Your task to perform on an android device: turn on notifications settings in the gmail app Image 0: 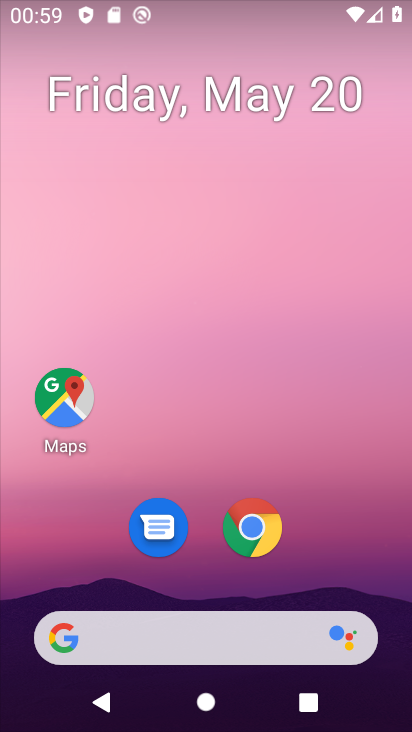
Step 0: drag from (201, 559) to (260, 13)
Your task to perform on an android device: turn on notifications settings in the gmail app Image 1: 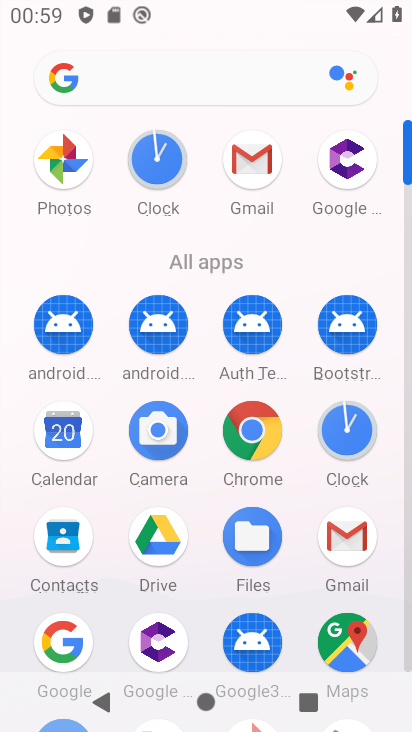
Step 1: click (248, 150)
Your task to perform on an android device: turn on notifications settings in the gmail app Image 2: 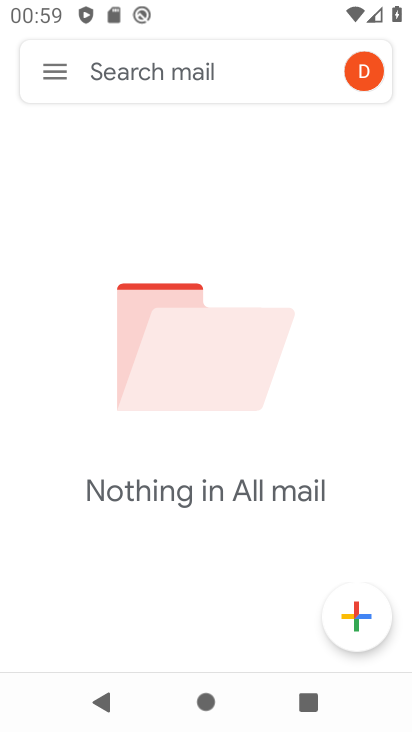
Step 2: click (51, 70)
Your task to perform on an android device: turn on notifications settings in the gmail app Image 3: 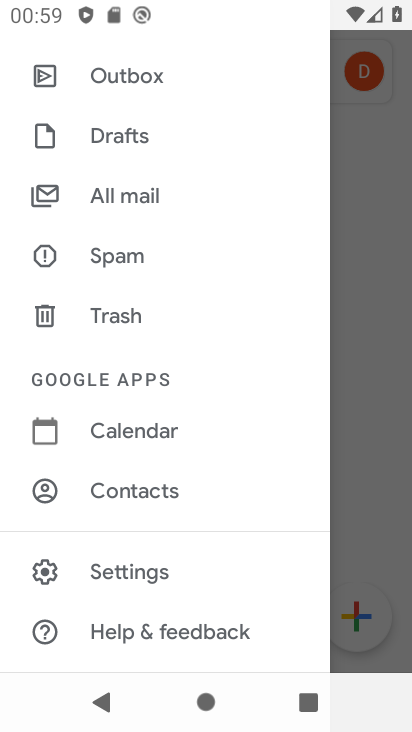
Step 3: click (179, 562)
Your task to perform on an android device: turn on notifications settings in the gmail app Image 4: 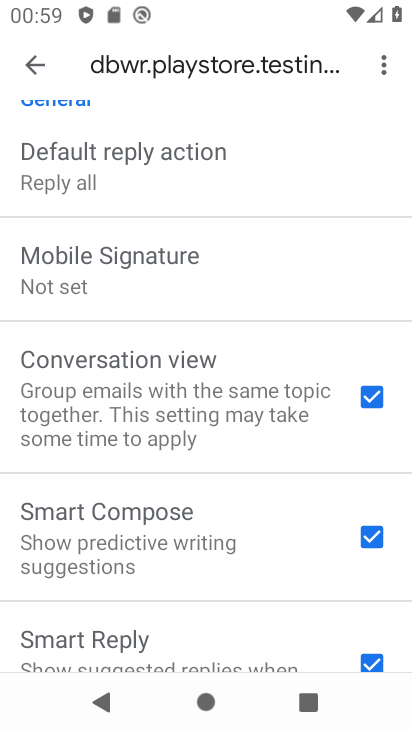
Step 4: click (35, 69)
Your task to perform on an android device: turn on notifications settings in the gmail app Image 5: 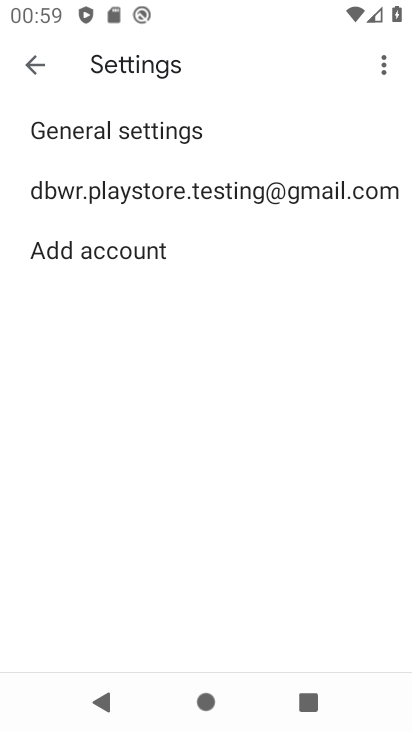
Step 5: click (208, 128)
Your task to perform on an android device: turn on notifications settings in the gmail app Image 6: 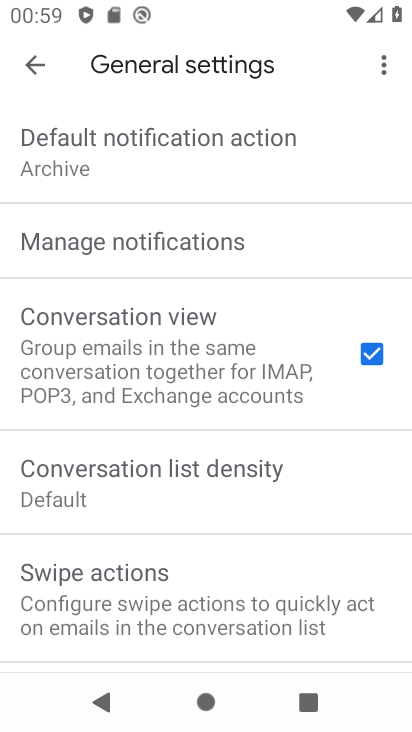
Step 6: click (263, 246)
Your task to perform on an android device: turn on notifications settings in the gmail app Image 7: 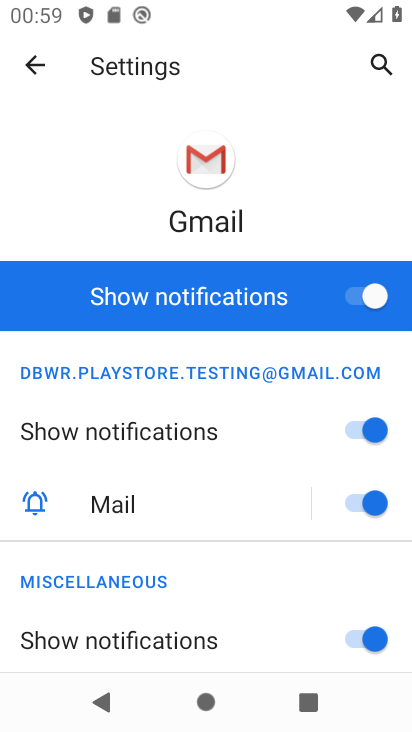
Step 7: task complete